Your task to perform on an android device: Go to Yahoo.com Image 0: 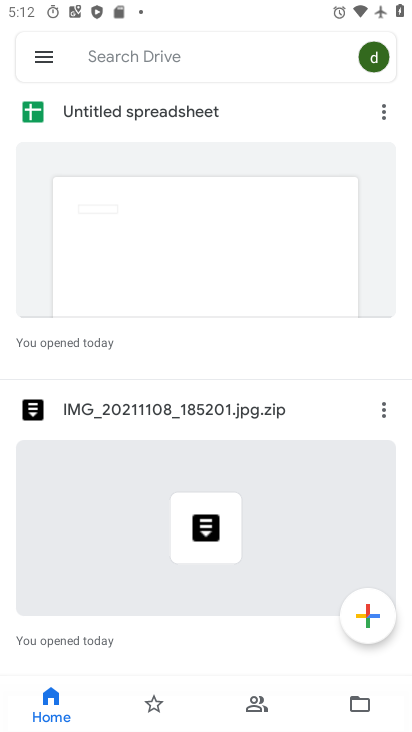
Step 0: press back button
Your task to perform on an android device: Go to Yahoo.com Image 1: 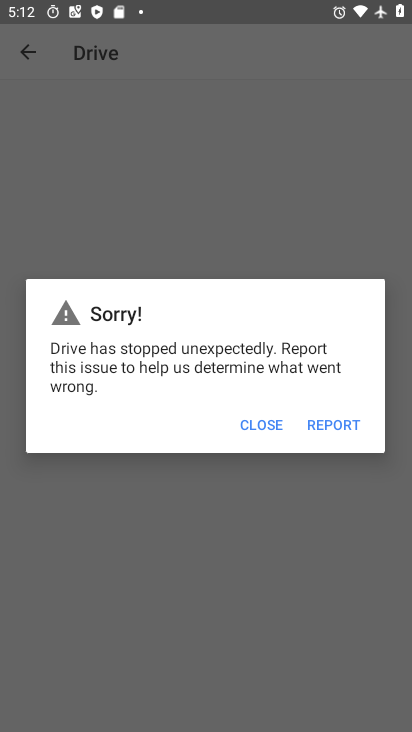
Step 1: press home button
Your task to perform on an android device: Go to Yahoo.com Image 2: 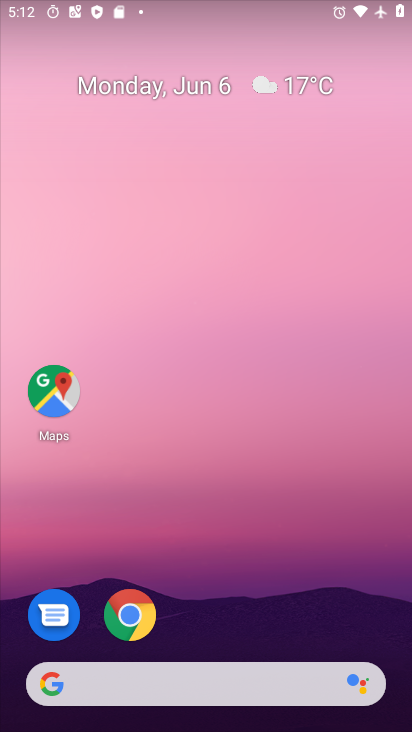
Step 2: drag from (221, 605) to (178, 29)
Your task to perform on an android device: Go to Yahoo.com Image 3: 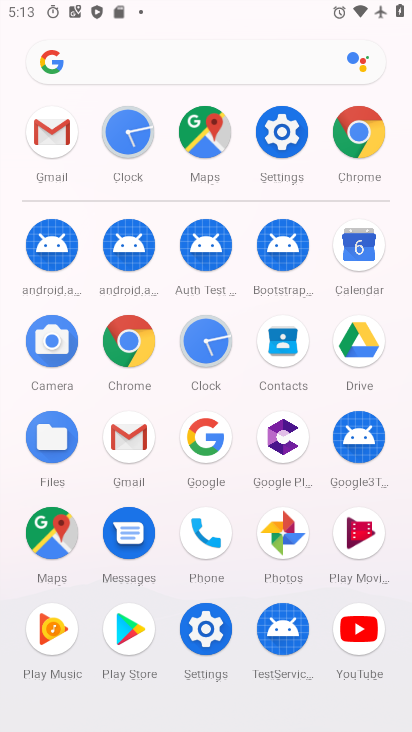
Step 3: click (129, 340)
Your task to perform on an android device: Go to Yahoo.com Image 4: 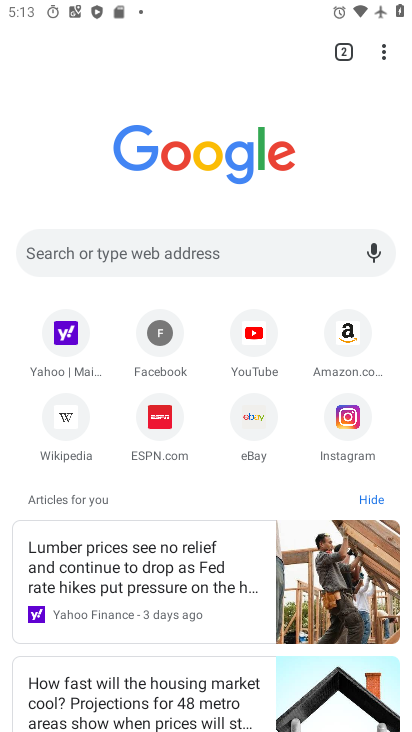
Step 4: click (63, 342)
Your task to perform on an android device: Go to Yahoo.com Image 5: 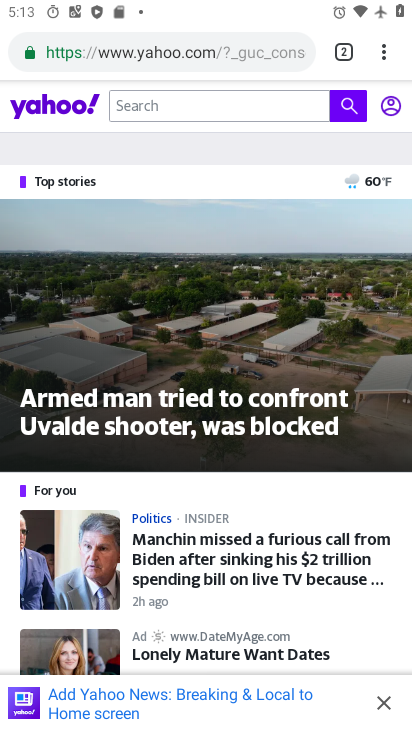
Step 5: task complete